Your task to perform on an android device: Open Google Chrome Image 0: 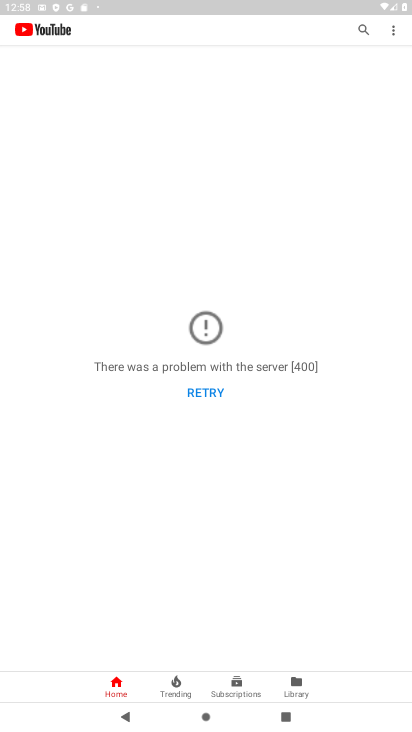
Step 0: press home button
Your task to perform on an android device: Open Google Chrome Image 1: 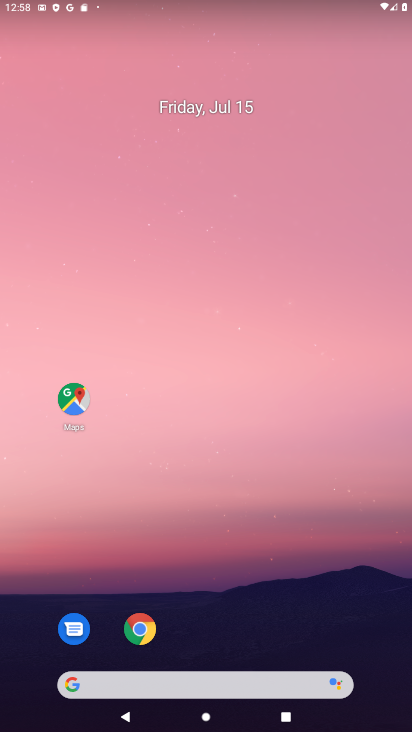
Step 1: click (140, 630)
Your task to perform on an android device: Open Google Chrome Image 2: 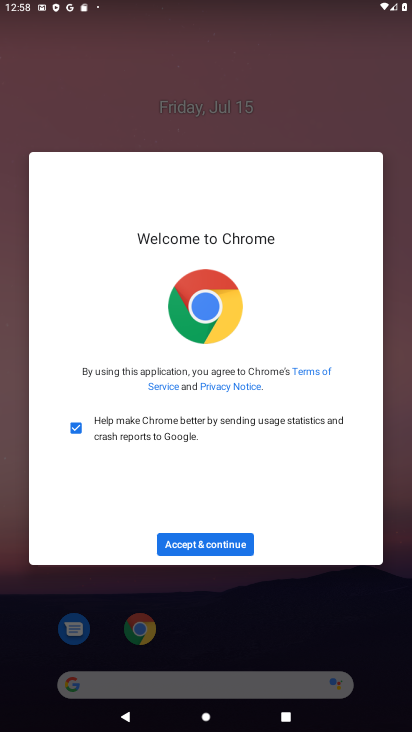
Step 2: click (214, 539)
Your task to perform on an android device: Open Google Chrome Image 3: 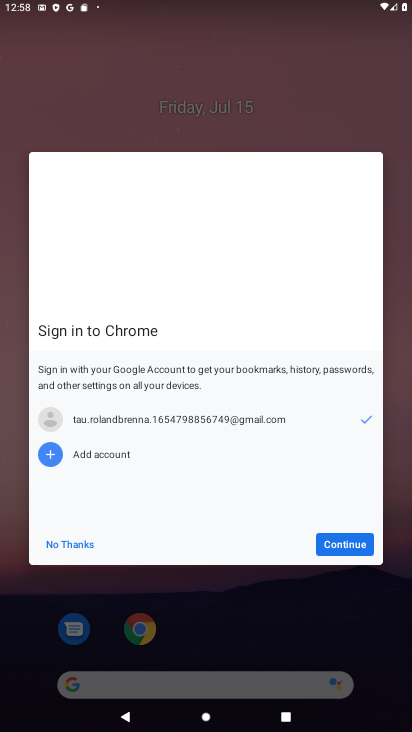
Step 3: click (340, 543)
Your task to perform on an android device: Open Google Chrome Image 4: 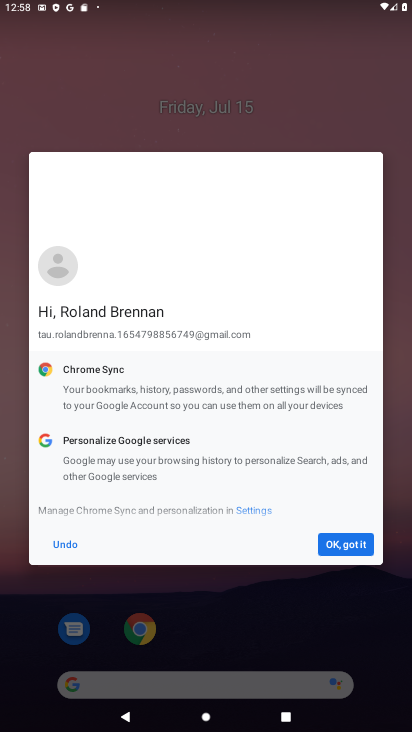
Step 4: click (340, 543)
Your task to perform on an android device: Open Google Chrome Image 5: 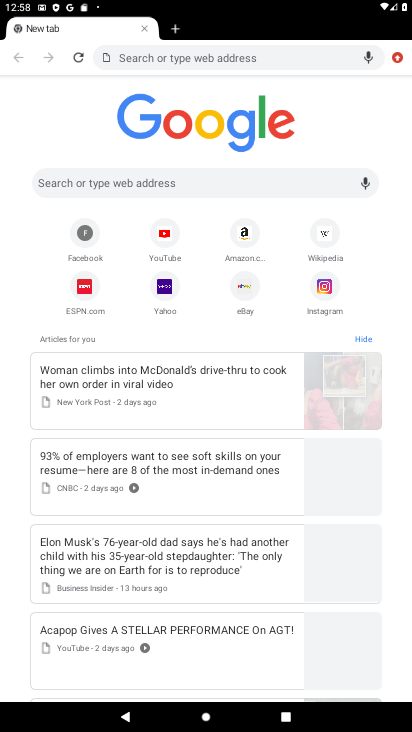
Step 5: task complete